Your task to perform on an android device: Open calendar and show me the first week of next month Image 0: 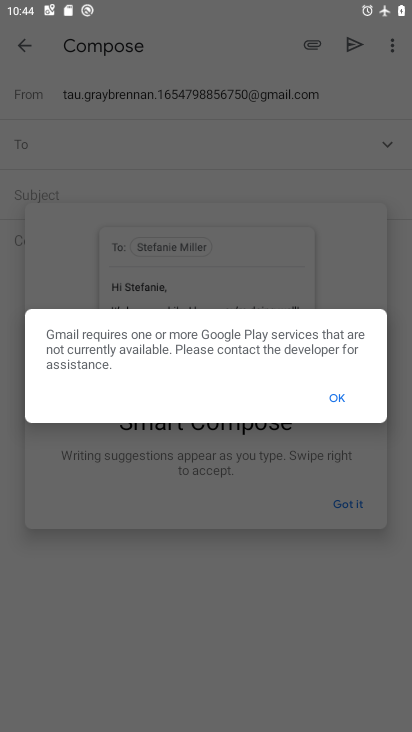
Step 0: press home button
Your task to perform on an android device: Open calendar and show me the first week of next month Image 1: 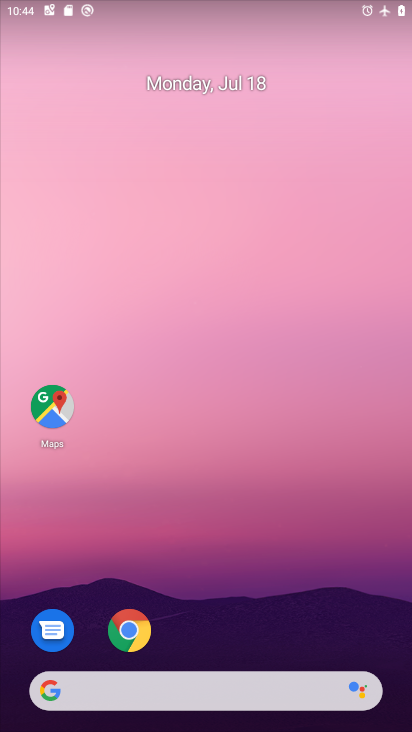
Step 1: drag from (194, 618) to (203, 155)
Your task to perform on an android device: Open calendar and show me the first week of next month Image 2: 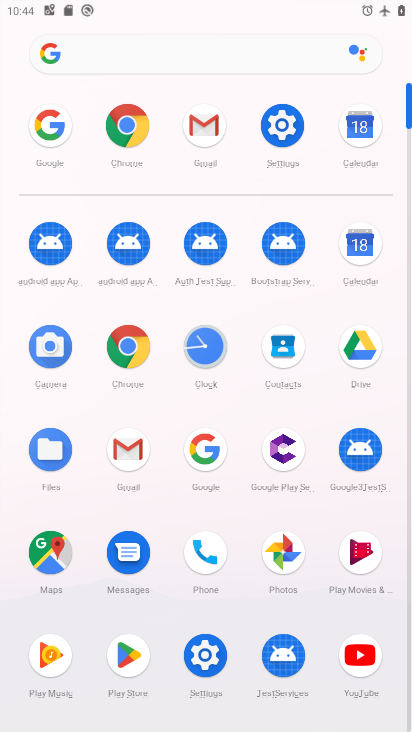
Step 2: click (364, 248)
Your task to perform on an android device: Open calendar and show me the first week of next month Image 3: 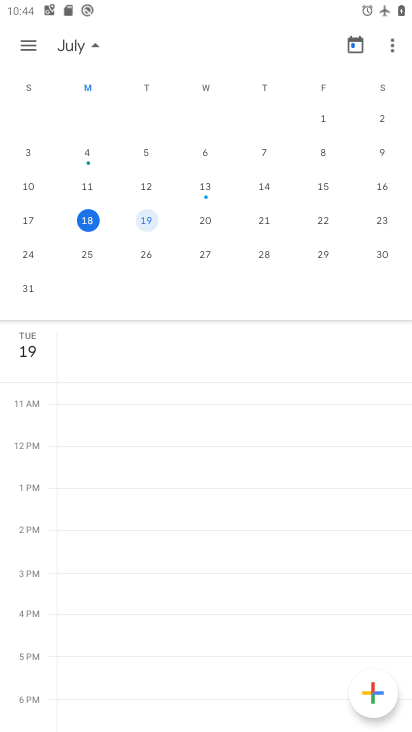
Step 3: drag from (353, 178) to (7, 158)
Your task to perform on an android device: Open calendar and show me the first week of next month Image 4: 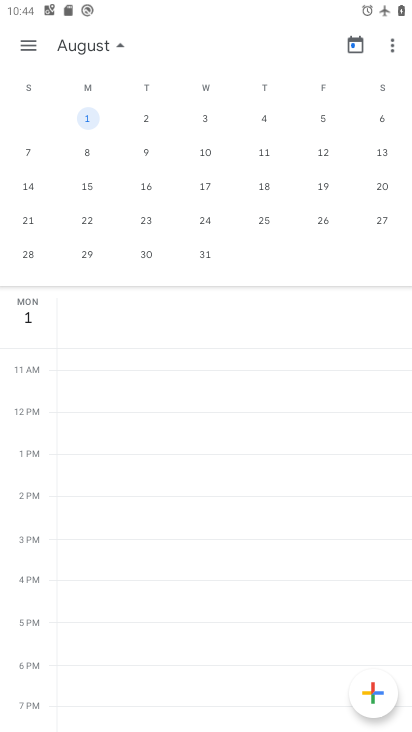
Step 4: click (31, 185)
Your task to perform on an android device: Open calendar and show me the first week of next month Image 5: 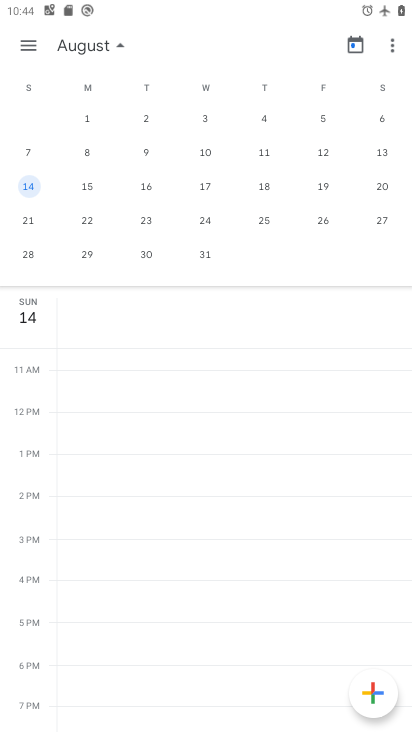
Step 5: task complete